Your task to perform on an android device: Open maps Image 0: 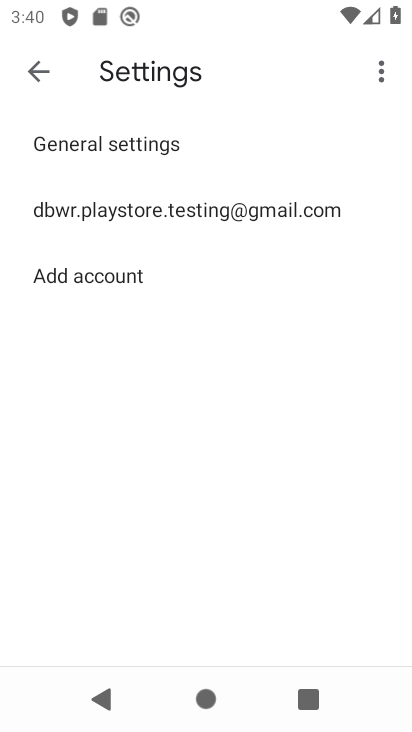
Step 0: press back button
Your task to perform on an android device: Open maps Image 1: 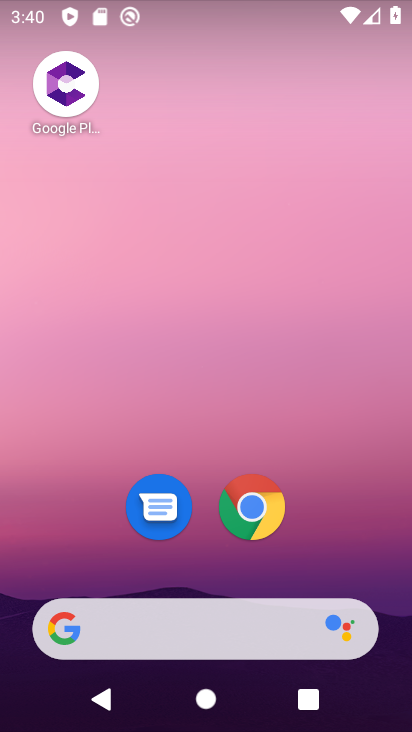
Step 1: drag from (228, 417) to (254, 5)
Your task to perform on an android device: Open maps Image 2: 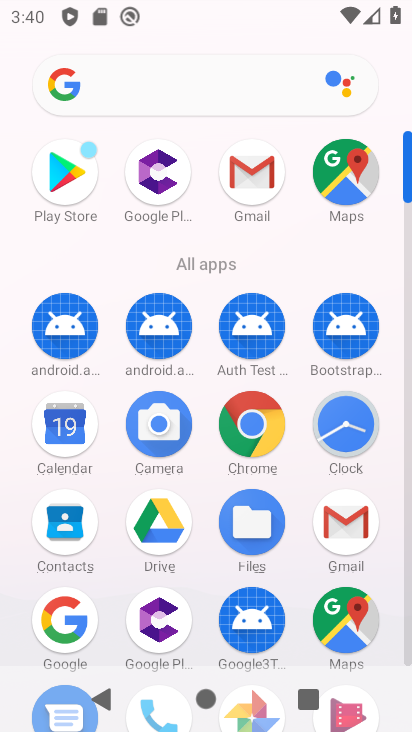
Step 2: click (341, 617)
Your task to perform on an android device: Open maps Image 3: 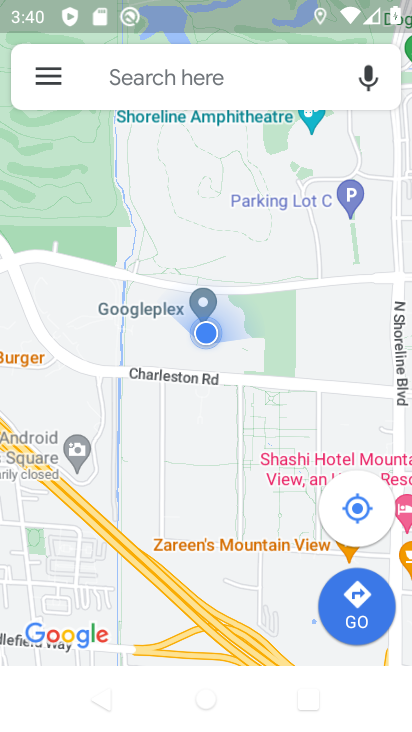
Step 3: task complete